Your task to perform on an android device: Go to calendar. Show me events next week Image 0: 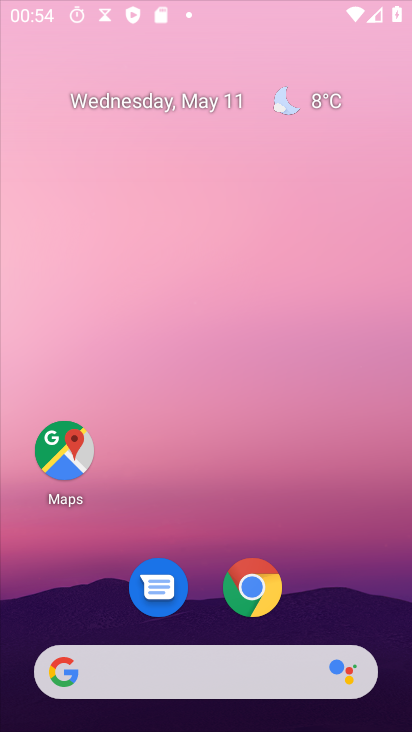
Step 0: drag from (306, 542) to (185, 176)
Your task to perform on an android device: Go to calendar. Show me events next week Image 1: 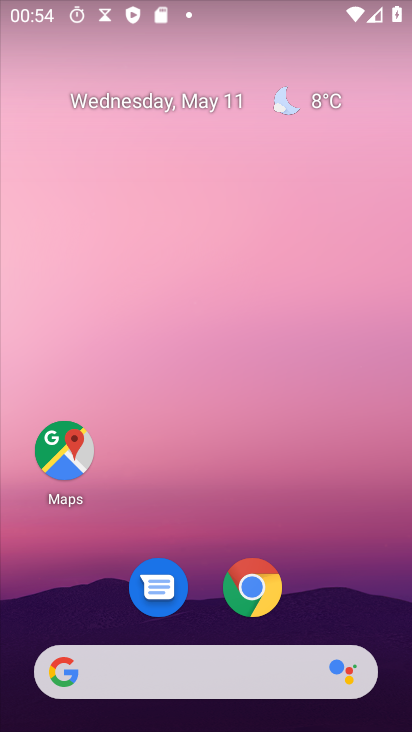
Step 1: drag from (359, 608) to (107, 5)
Your task to perform on an android device: Go to calendar. Show me events next week Image 2: 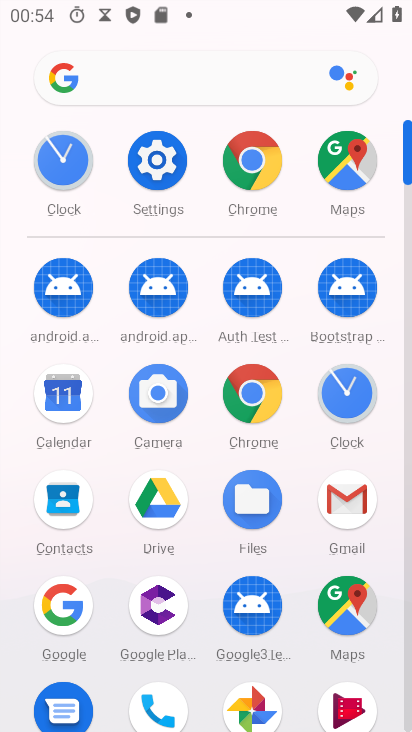
Step 2: drag from (301, 526) to (96, 90)
Your task to perform on an android device: Go to calendar. Show me events next week Image 3: 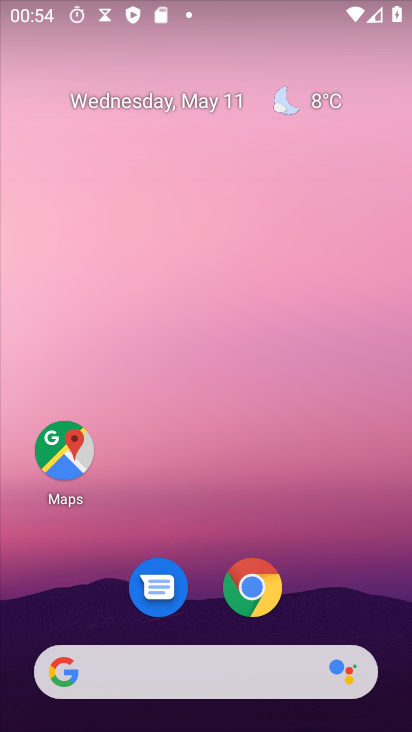
Step 3: drag from (356, 581) to (127, 116)
Your task to perform on an android device: Go to calendar. Show me events next week Image 4: 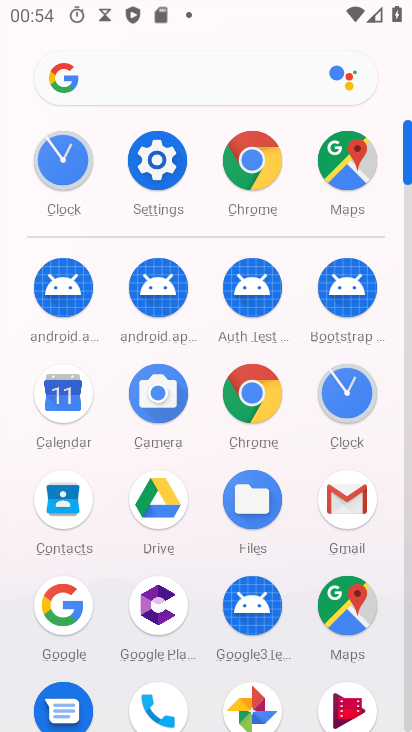
Step 4: click (48, 400)
Your task to perform on an android device: Go to calendar. Show me events next week Image 5: 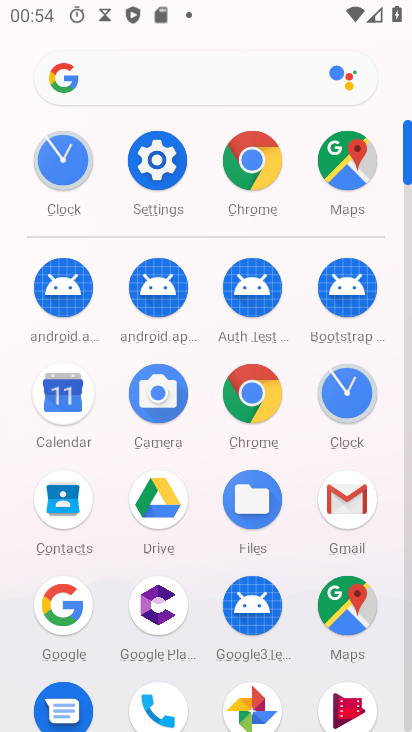
Step 5: click (54, 395)
Your task to perform on an android device: Go to calendar. Show me events next week Image 6: 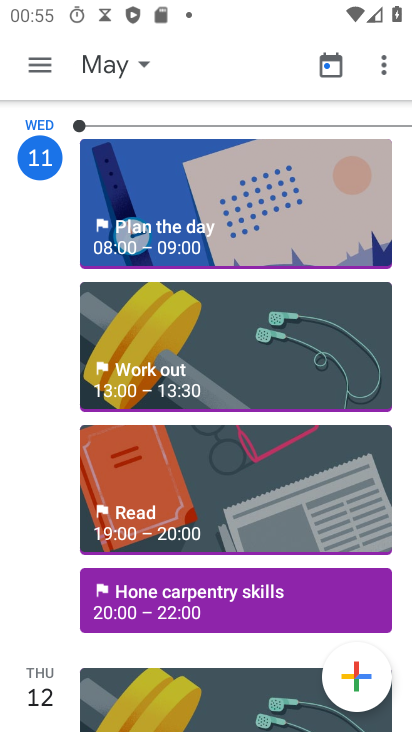
Step 6: drag from (181, 492) to (75, 163)
Your task to perform on an android device: Go to calendar. Show me events next week Image 7: 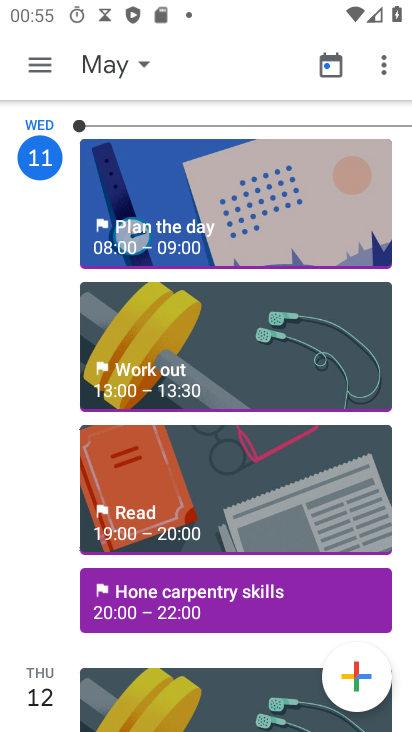
Step 7: drag from (192, 509) to (233, 202)
Your task to perform on an android device: Go to calendar. Show me events next week Image 8: 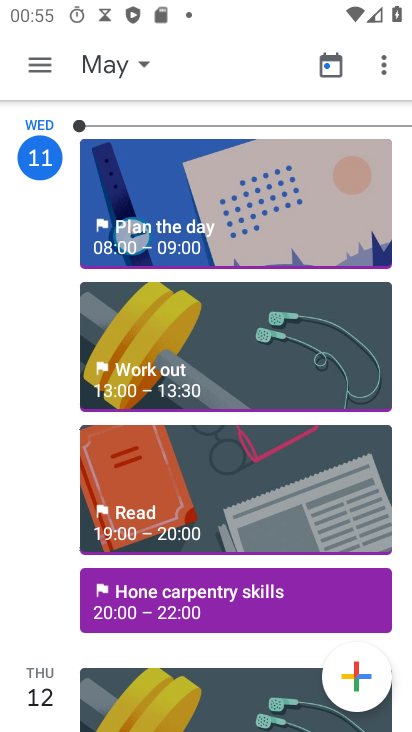
Step 8: drag from (270, 528) to (198, 109)
Your task to perform on an android device: Go to calendar. Show me events next week Image 9: 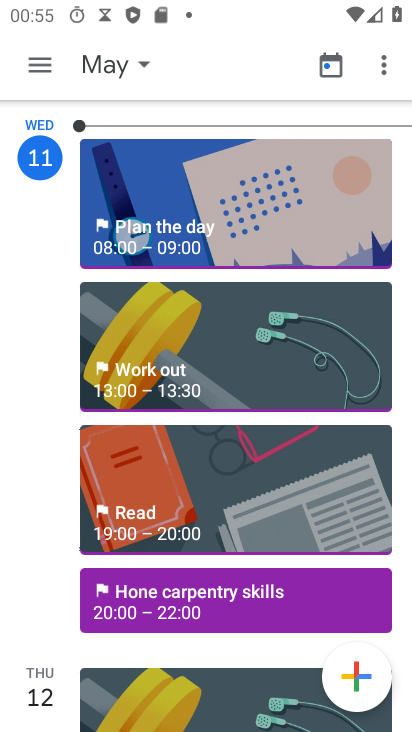
Step 9: drag from (206, 460) to (195, 145)
Your task to perform on an android device: Go to calendar. Show me events next week Image 10: 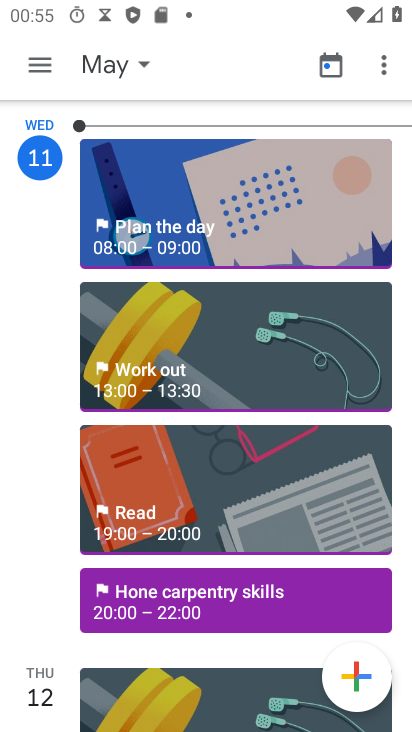
Step 10: drag from (116, 523) to (138, 80)
Your task to perform on an android device: Go to calendar. Show me events next week Image 11: 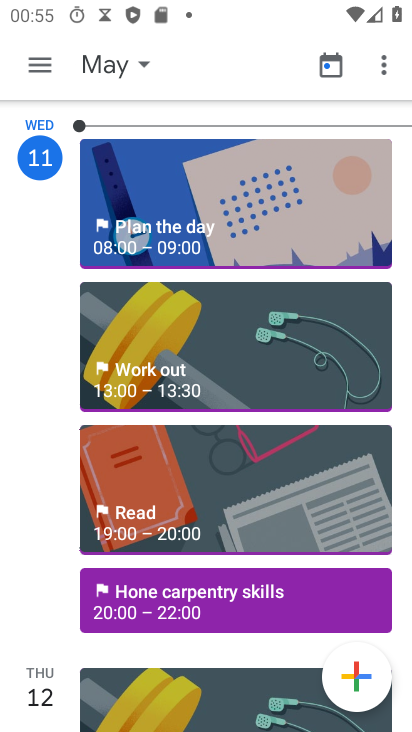
Step 11: drag from (163, 549) to (160, 91)
Your task to perform on an android device: Go to calendar. Show me events next week Image 12: 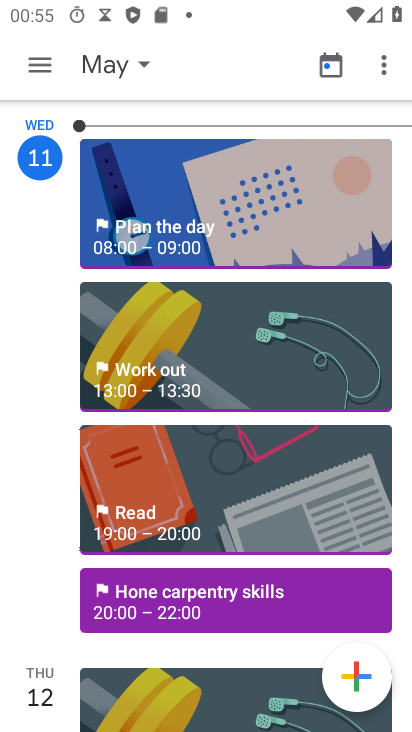
Step 12: drag from (209, 594) to (174, 181)
Your task to perform on an android device: Go to calendar. Show me events next week Image 13: 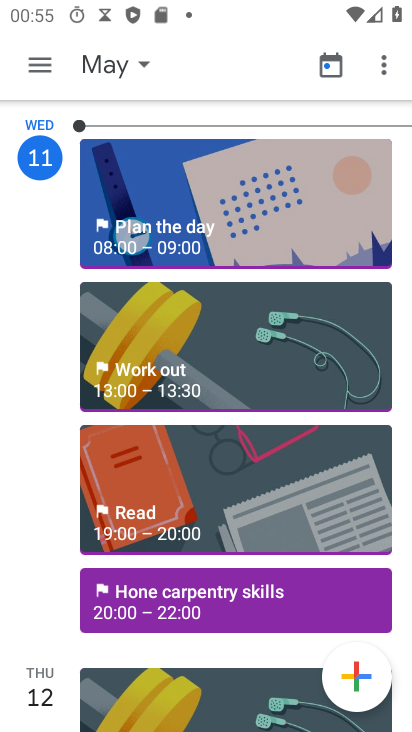
Step 13: drag from (180, 612) to (162, 66)
Your task to perform on an android device: Go to calendar. Show me events next week Image 14: 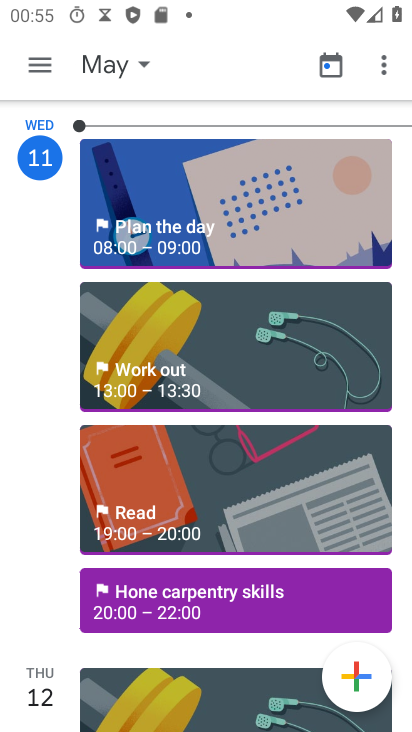
Step 14: drag from (118, 630) to (199, 127)
Your task to perform on an android device: Go to calendar. Show me events next week Image 15: 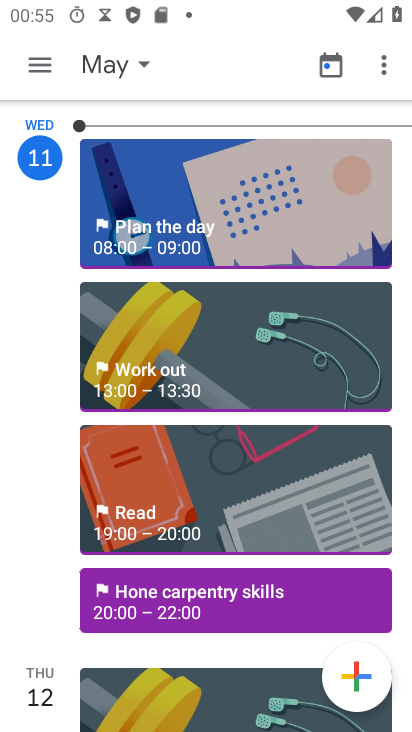
Step 15: drag from (275, 584) to (327, 213)
Your task to perform on an android device: Go to calendar. Show me events next week Image 16: 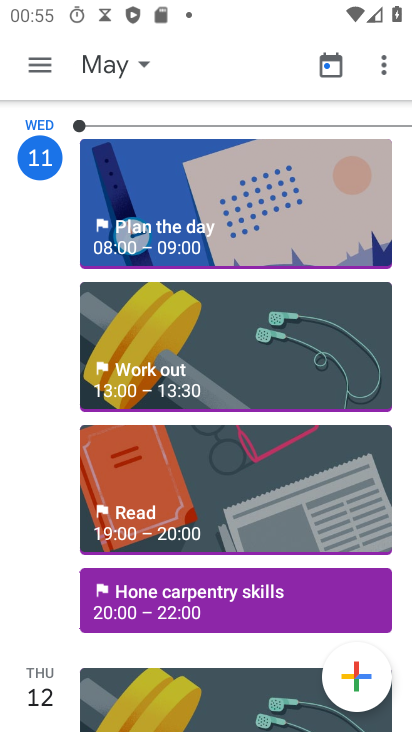
Step 16: drag from (263, 613) to (179, 229)
Your task to perform on an android device: Go to calendar. Show me events next week Image 17: 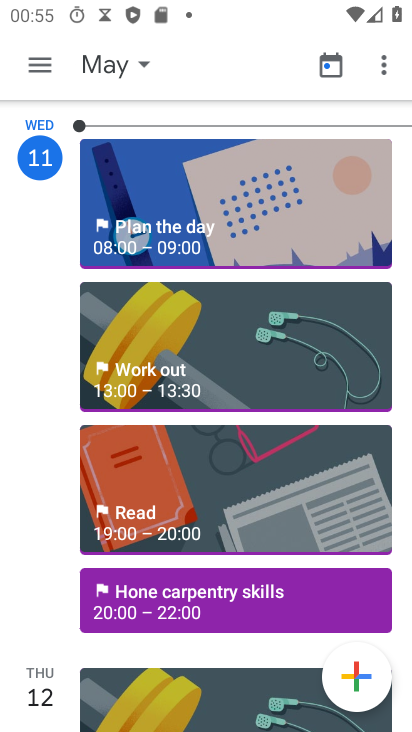
Step 17: drag from (149, 573) to (143, 279)
Your task to perform on an android device: Go to calendar. Show me events next week Image 18: 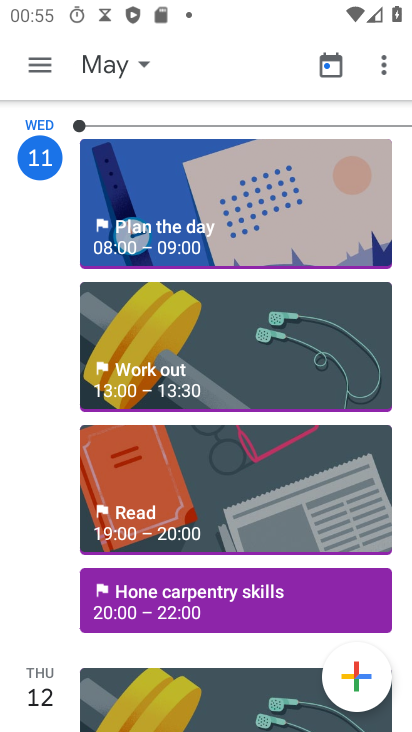
Step 18: drag from (179, 659) to (179, 425)
Your task to perform on an android device: Go to calendar. Show me events next week Image 19: 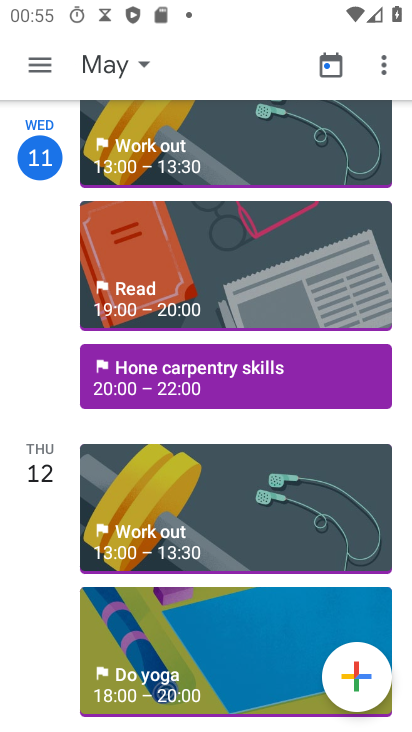
Step 19: drag from (188, 515) to (158, 261)
Your task to perform on an android device: Go to calendar. Show me events next week Image 20: 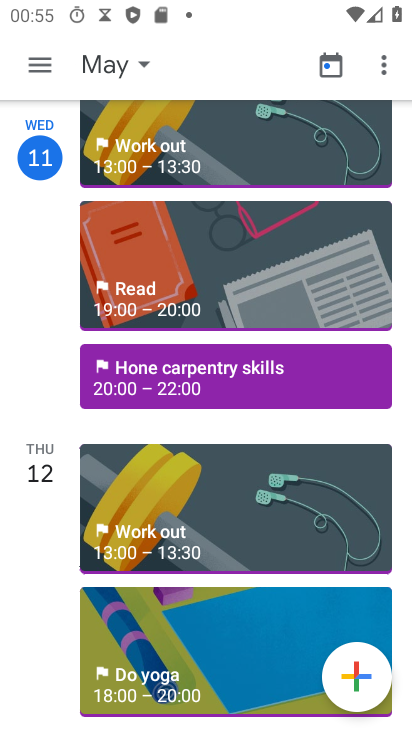
Step 20: drag from (223, 522) to (199, 274)
Your task to perform on an android device: Go to calendar. Show me events next week Image 21: 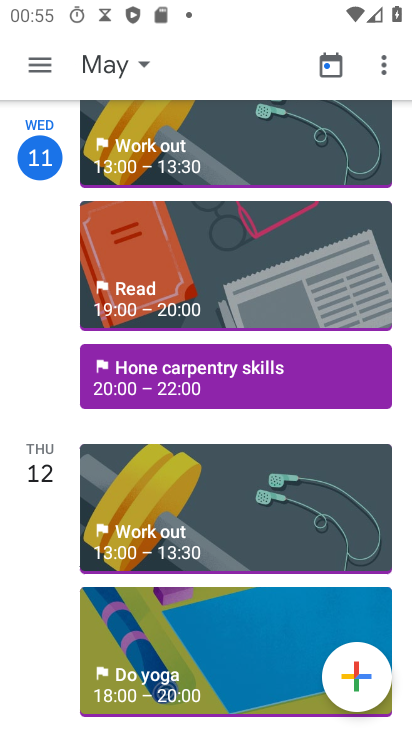
Step 21: drag from (168, 486) to (135, 264)
Your task to perform on an android device: Go to calendar. Show me events next week Image 22: 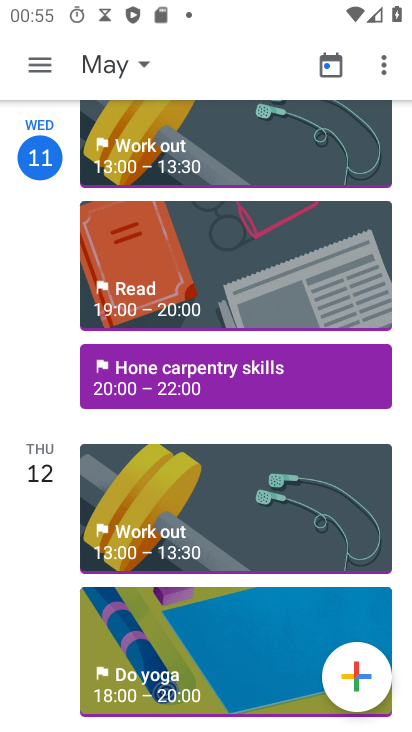
Step 22: drag from (208, 463) to (208, 244)
Your task to perform on an android device: Go to calendar. Show me events next week Image 23: 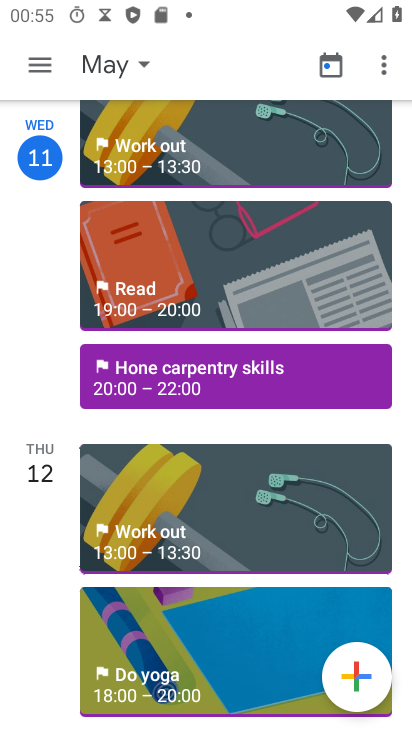
Step 23: drag from (199, 500) to (197, 243)
Your task to perform on an android device: Go to calendar. Show me events next week Image 24: 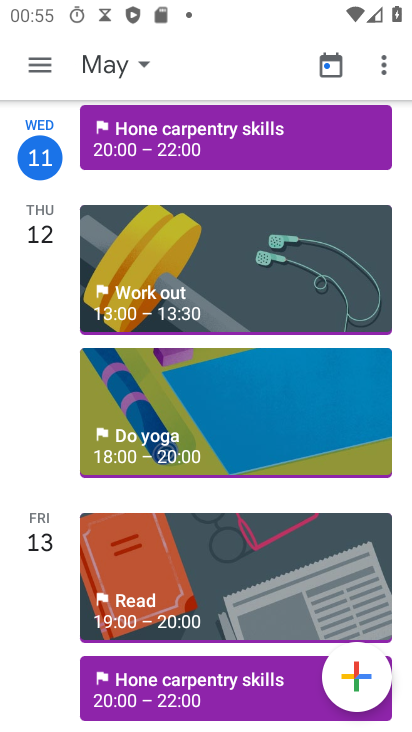
Step 24: drag from (184, 472) to (170, 289)
Your task to perform on an android device: Go to calendar. Show me events next week Image 25: 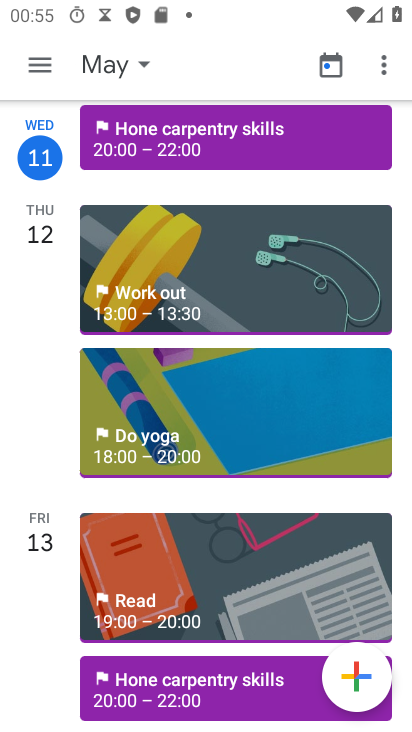
Step 25: drag from (123, 566) to (119, 204)
Your task to perform on an android device: Go to calendar. Show me events next week Image 26: 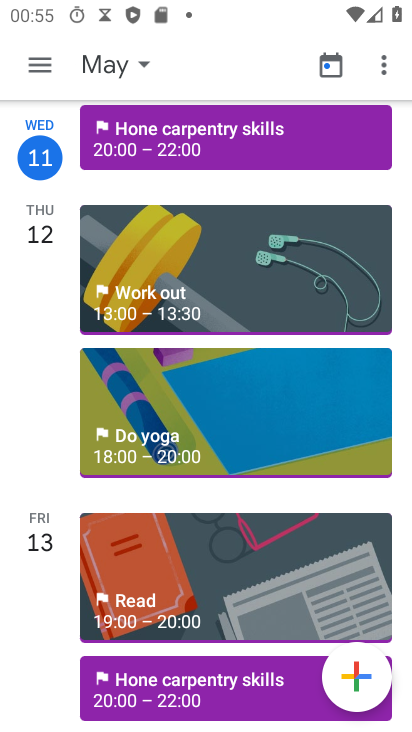
Step 26: drag from (123, 506) to (123, 279)
Your task to perform on an android device: Go to calendar. Show me events next week Image 27: 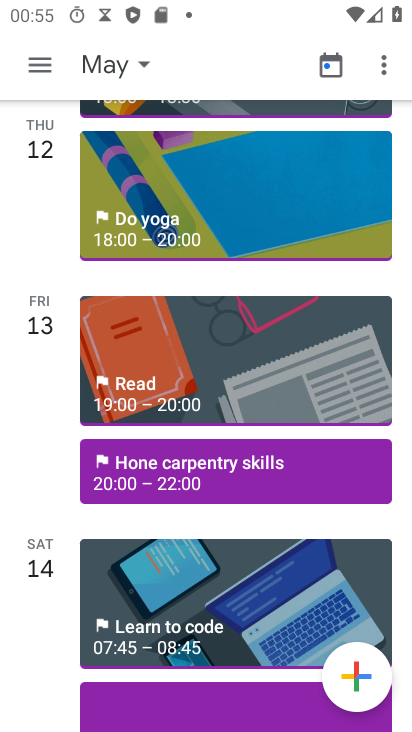
Step 27: drag from (116, 501) to (107, 230)
Your task to perform on an android device: Go to calendar. Show me events next week Image 28: 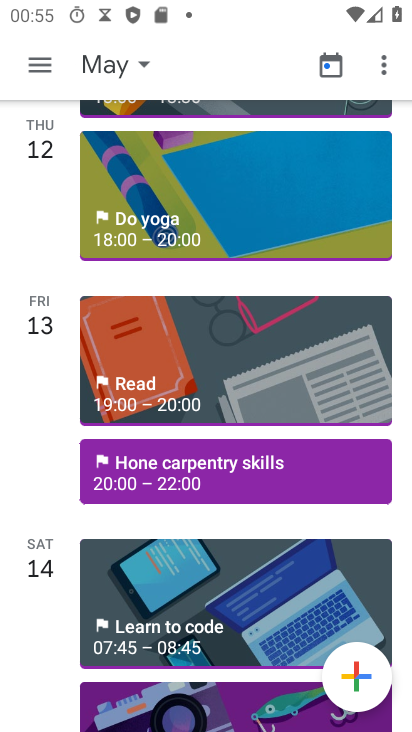
Step 28: drag from (135, 450) to (159, 259)
Your task to perform on an android device: Go to calendar. Show me events next week Image 29: 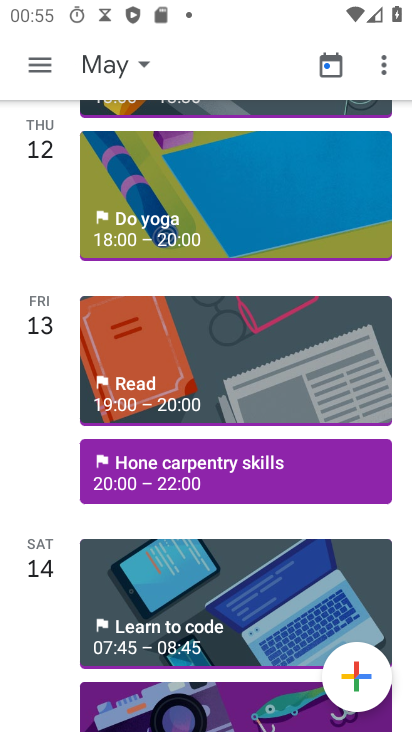
Step 29: drag from (171, 391) to (175, 334)
Your task to perform on an android device: Go to calendar. Show me events next week Image 30: 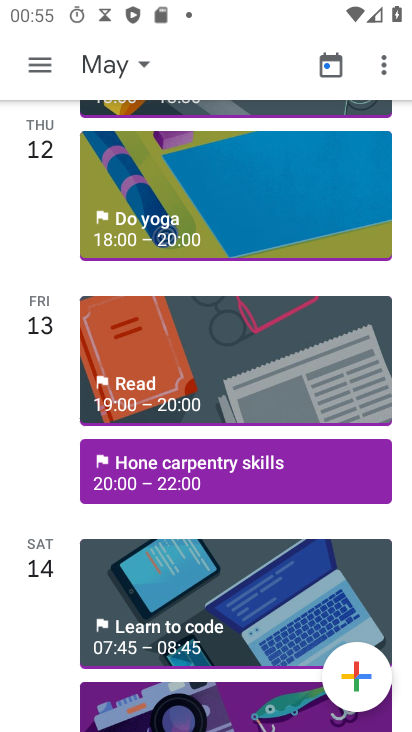
Step 30: click (184, 328)
Your task to perform on an android device: Go to calendar. Show me events next week Image 31: 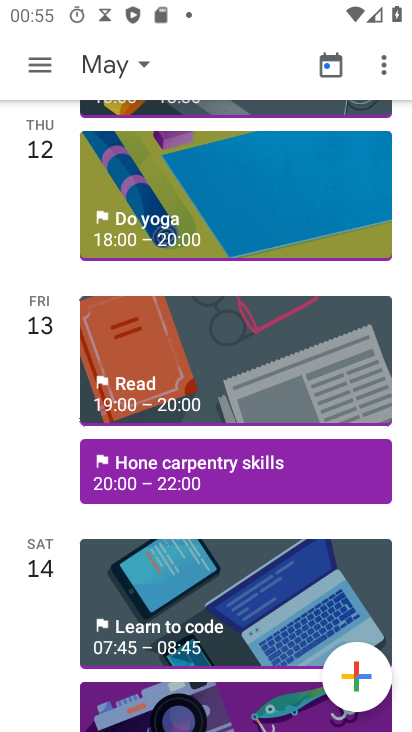
Step 31: drag from (226, 512) to (259, 265)
Your task to perform on an android device: Go to calendar. Show me events next week Image 32: 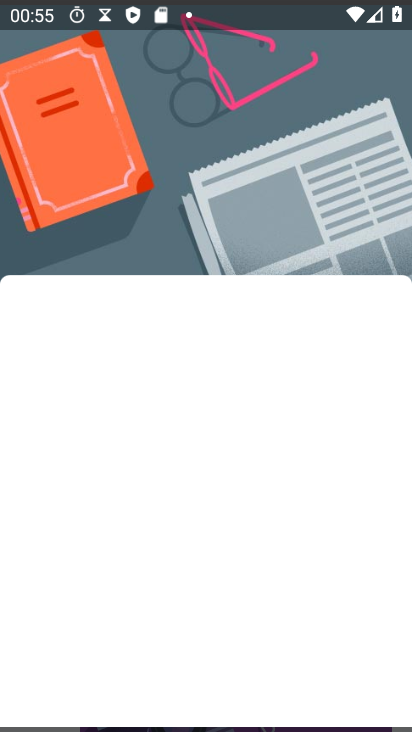
Step 32: drag from (232, 530) to (259, 215)
Your task to perform on an android device: Go to calendar. Show me events next week Image 33: 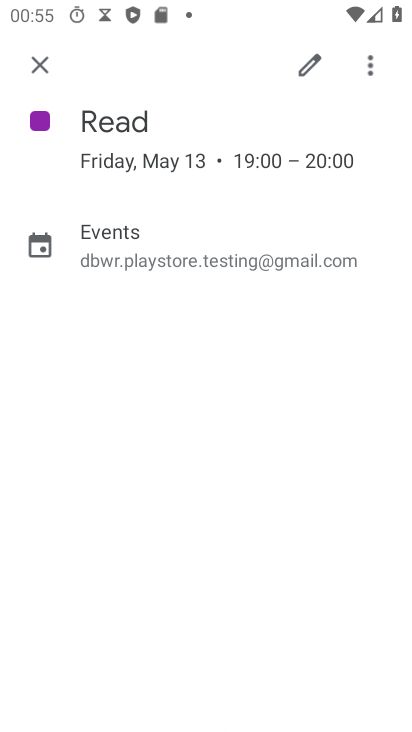
Step 33: drag from (229, 447) to (230, 297)
Your task to perform on an android device: Go to calendar. Show me events next week Image 34: 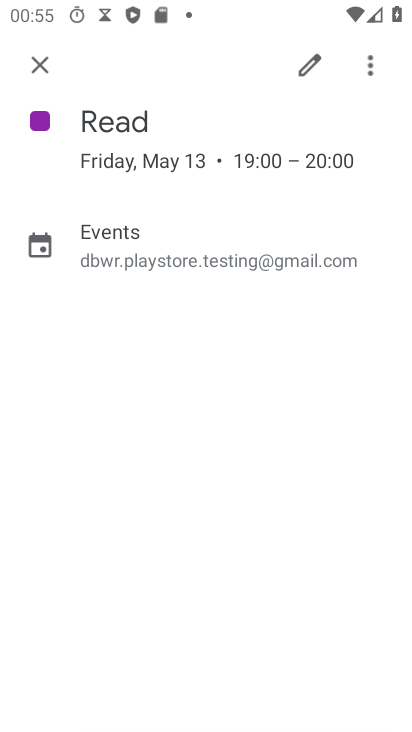
Step 34: drag from (228, 388) to (228, 229)
Your task to perform on an android device: Go to calendar. Show me events next week Image 35: 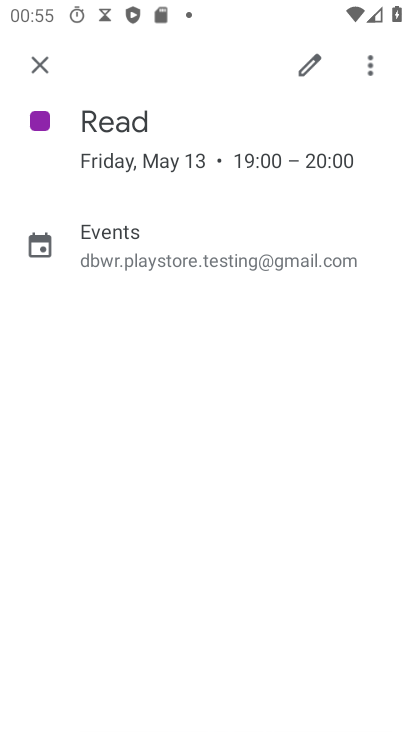
Step 35: drag from (216, 592) to (253, 276)
Your task to perform on an android device: Go to calendar. Show me events next week Image 36: 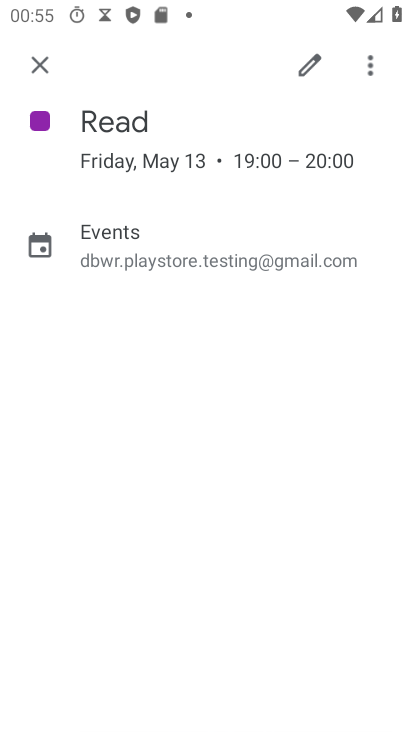
Step 36: drag from (299, 453) to (304, 236)
Your task to perform on an android device: Go to calendar. Show me events next week Image 37: 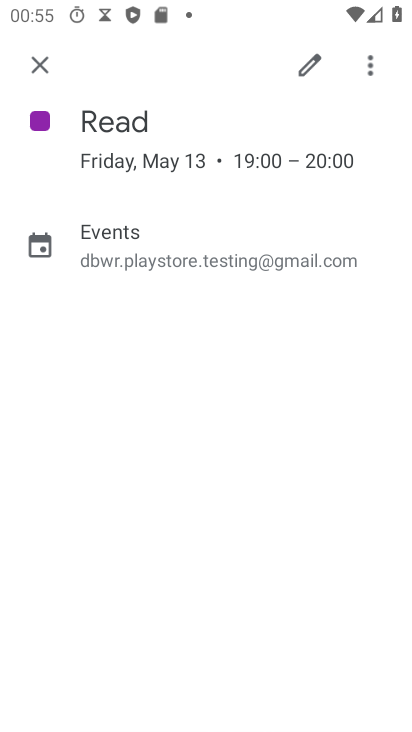
Step 37: drag from (291, 406) to (291, 228)
Your task to perform on an android device: Go to calendar. Show me events next week Image 38: 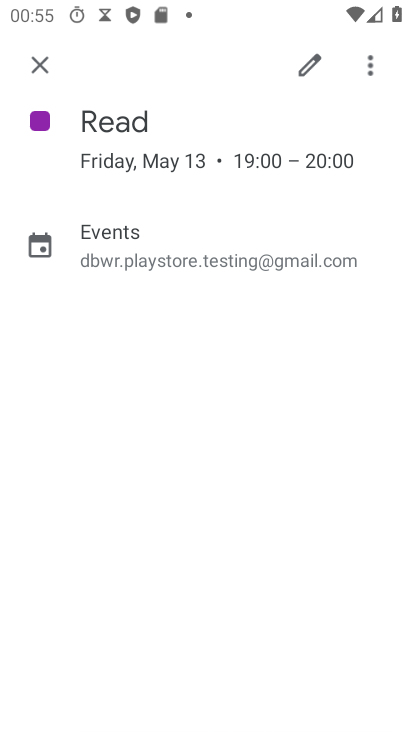
Step 38: drag from (333, 505) to (359, 230)
Your task to perform on an android device: Go to calendar. Show me events next week Image 39: 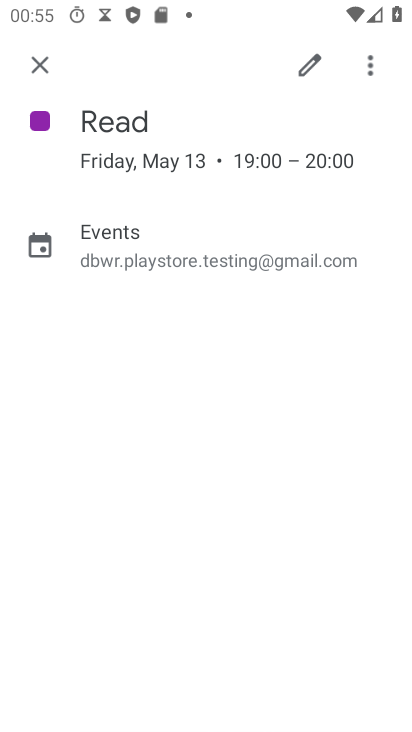
Step 39: drag from (284, 488) to (278, 203)
Your task to perform on an android device: Go to calendar. Show me events next week Image 40: 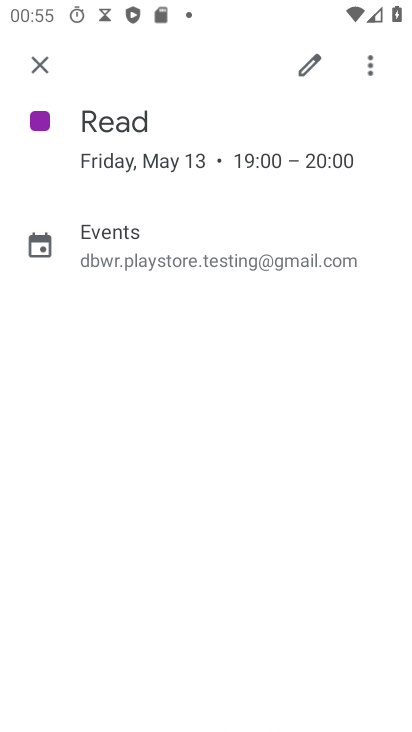
Step 40: drag from (204, 487) to (133, 98)
Your task to perform on an android device: Go to calendar. Show me events next week Image 41: 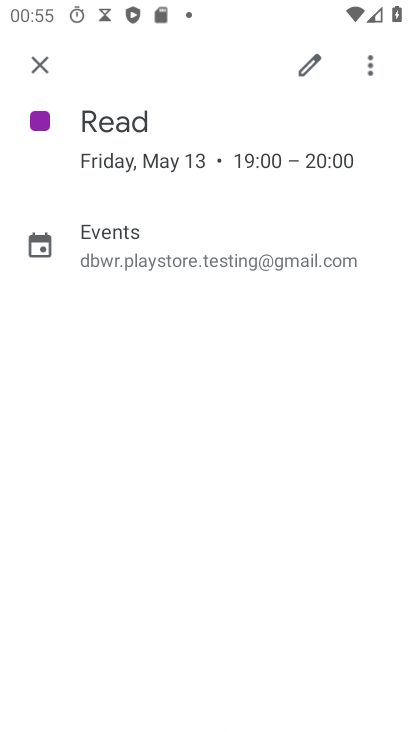
Step 41: click (35, 54)
Your task to perform on an android device: Go to calendar. Show me events next week Image 42: 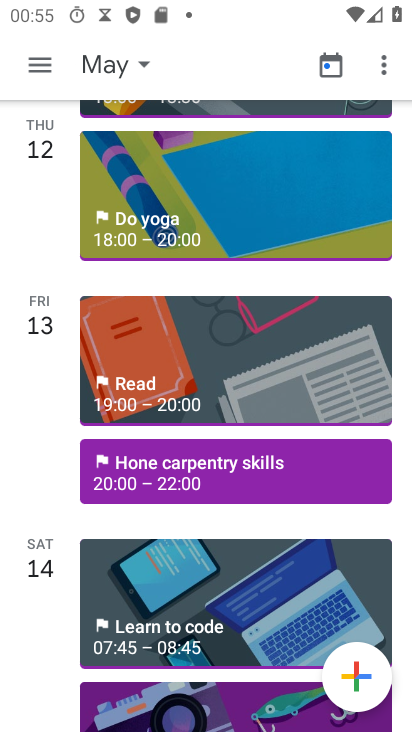
Step 42: task complete